Your task to perform on an android device: Open Google Chrome and click the shortcut for Amazon.com Image 0: 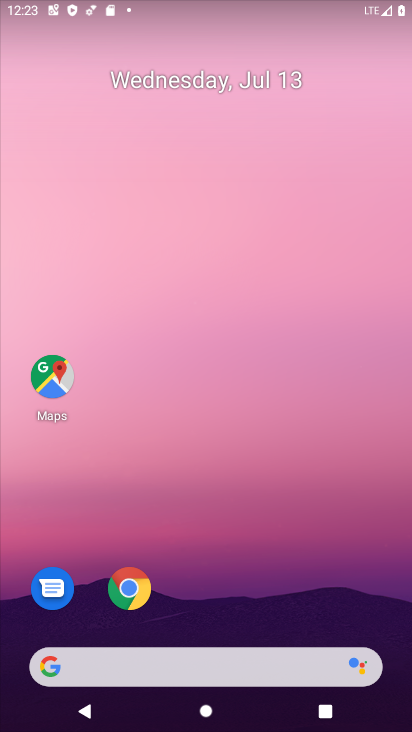
Step 0: click (124, 593)
Your task to perform on an android device: Open Google Chrome and click the shortcut for Amazon.com Image 1: 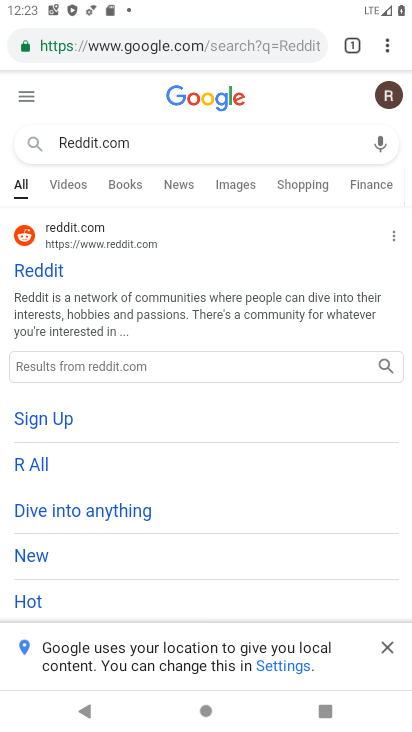
Step 1: press back button
Your task to perform on an android device: Open Google Chrome and click the shortcut for Amazon.com Image 2: 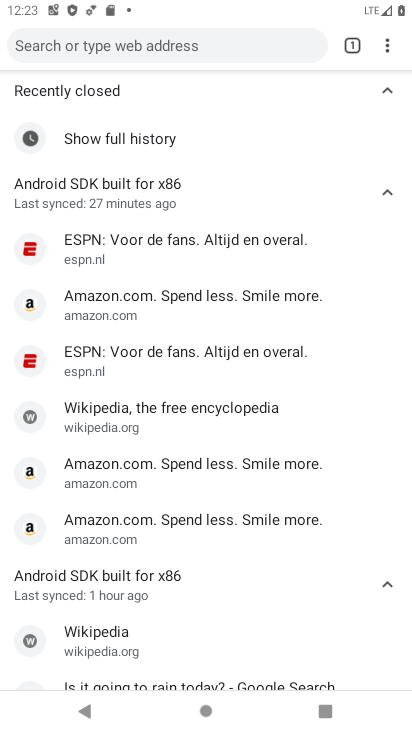
Step 2: press back button
Your task to perform on an android device: Open Google Chrome and click the shortcut for Amazon.com Image 3: 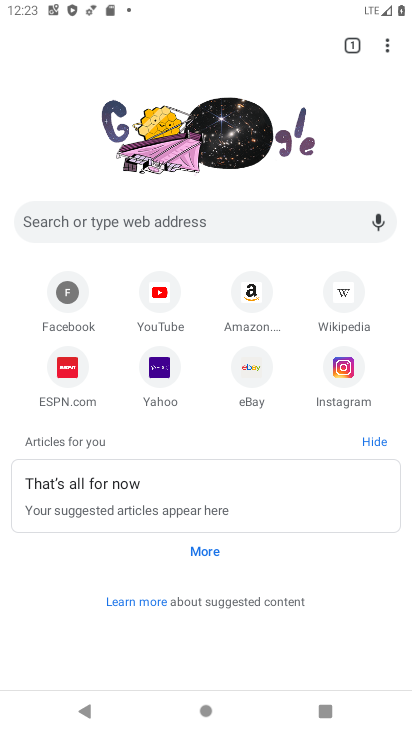
Step 3: click (259, 299)
Your task to perform on an android device: Open Google Chrome and click the shortcut for Amazon.com Image 4: 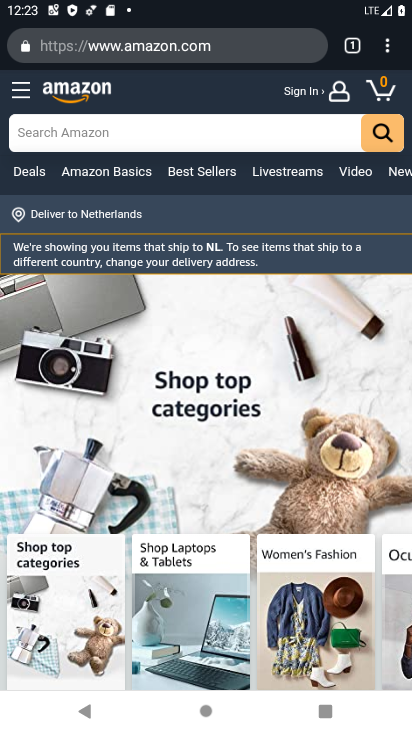
Step 4: task complete